Your task to perform on an android device: choose inbox layout in the gmail app Image 0: 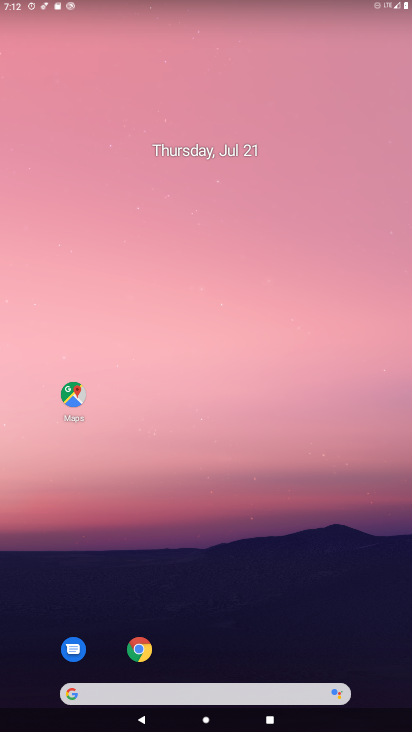
Step 0: drag from (362, 650) to (254, 43)
Your task to perform on an android device: choose inbox layout in the gmail app Image 1: 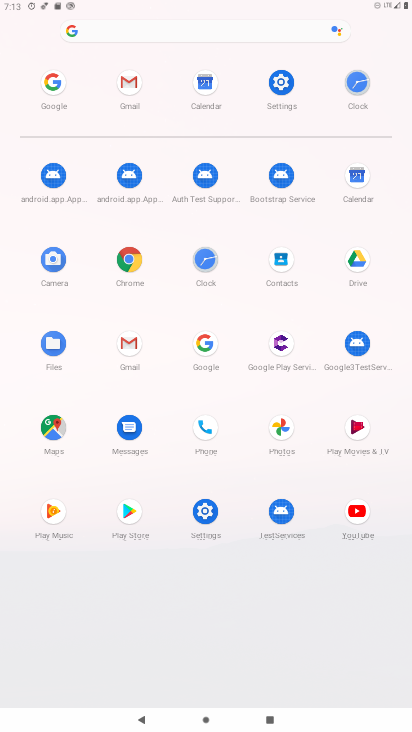
Step 1: click (128, 351)
Your task to perform on an android device: choose inbox layout in the gmail app Image 2: 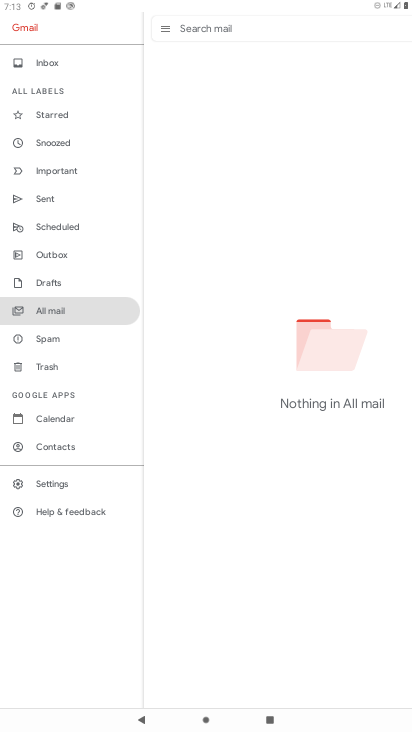
Step 2: click (59, 66)
Your task to perform on an android device: choose inbox layout in the gmail app Image 3: 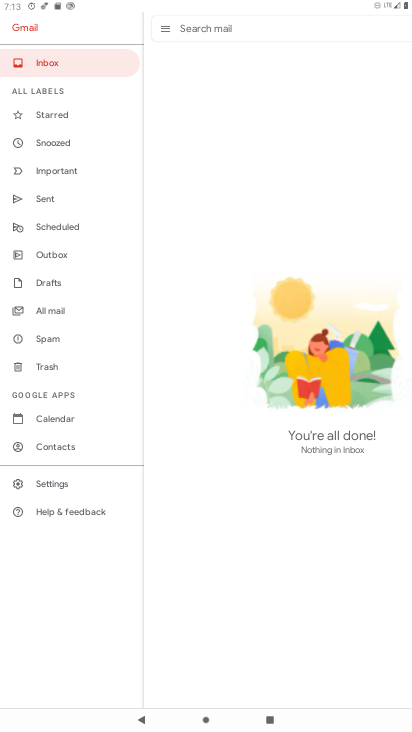
Step 3: task complete